Your task to perform on an android device: check out phone information Image 0: 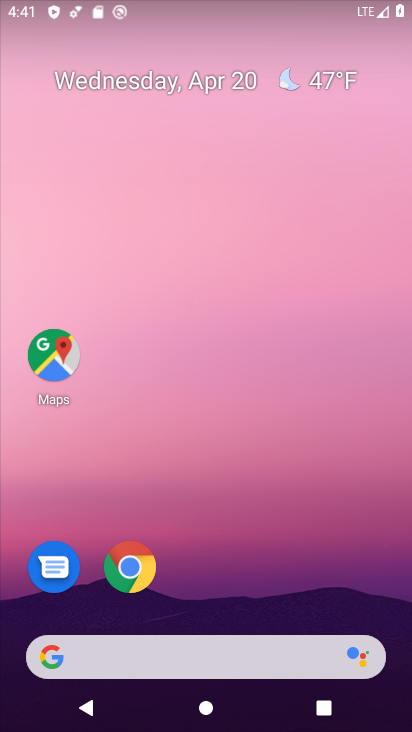
Step 0: drag from (309, 497) to (283, 3)
Your task to perform on an android device: check out phone information Image 1: 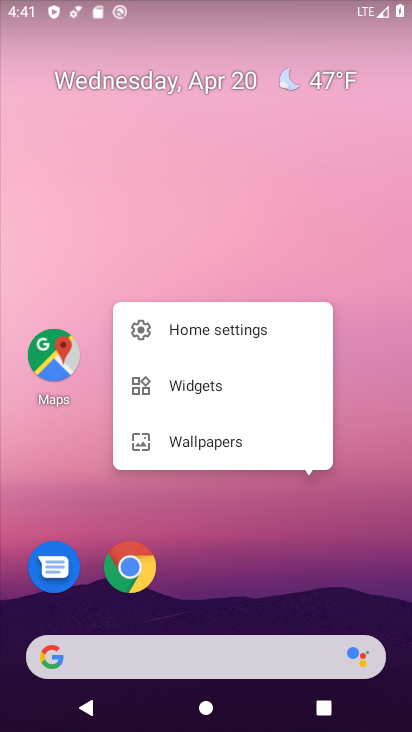
Step 1: click (344, 289)
Your task to perform on an android device: check out phone information Image 2: 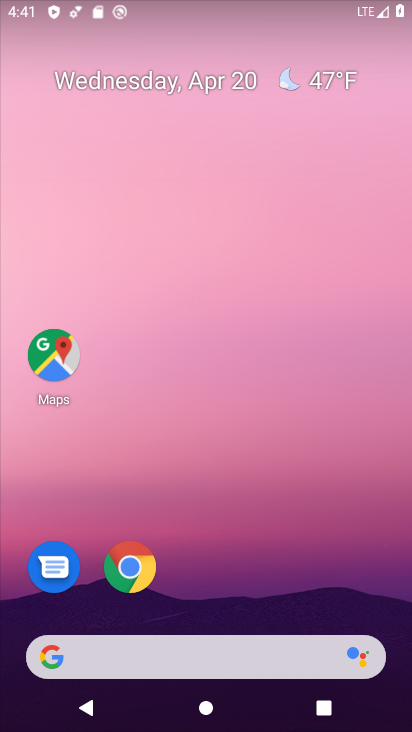
Step 2: drag from (295, 462) to (278, 2)
Your task to perform on an android device: check out phone information Image 3: 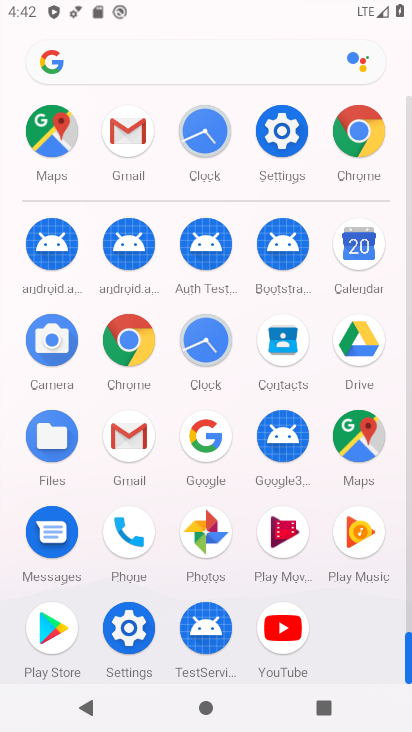
Step 3: click (285, 129)
Your task to perform on an android device: check out phone information Image 4: 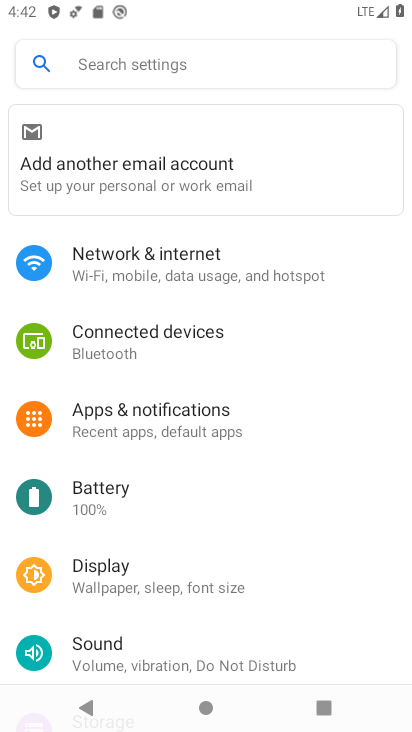
Step 4: drag from (341, 594) to (320, 265)
Your task to perform on an android device: check out phone information Image 5: 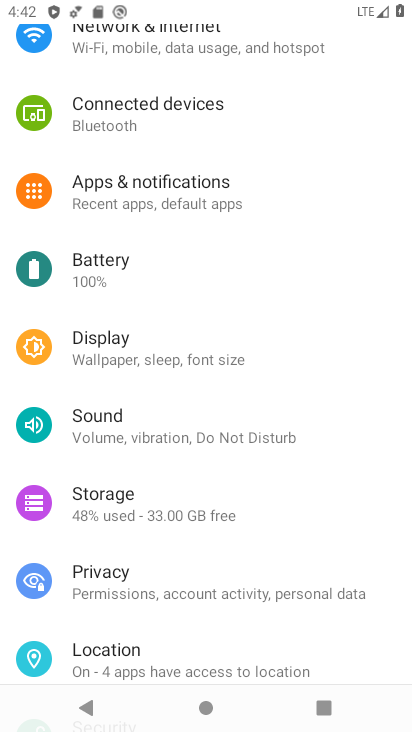
Step 5: drag from (246, 512) to (261, 140)
Your task to perform on an android device: check out phone information Image 6: 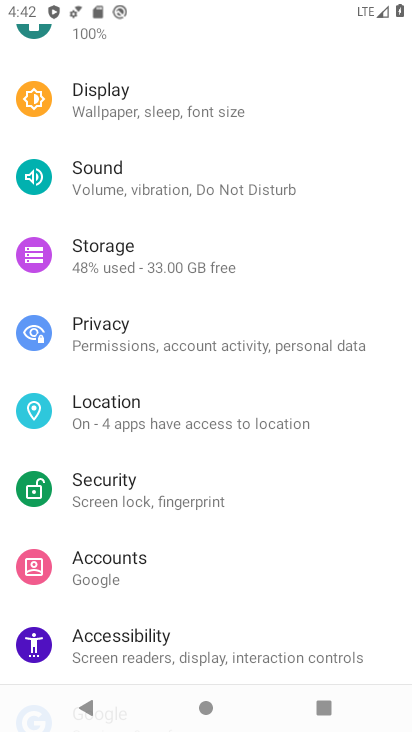
Step 6: drag from (249, 530) to (267, 206)
Your task to perform on an android device: check out phone information Image 7: 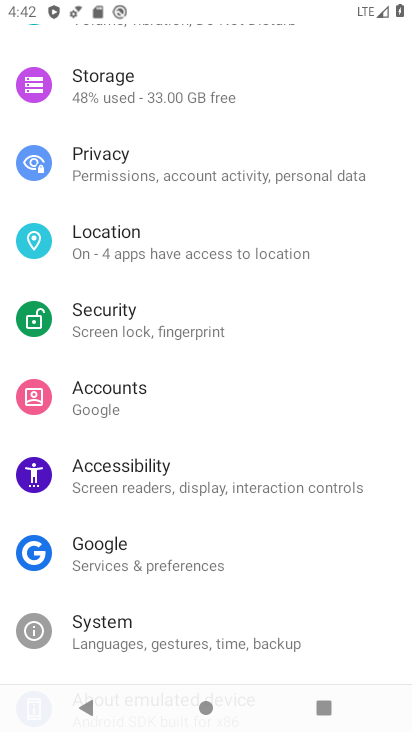
Step 7: drag from (242, 615) to (252, 108)
Your task to perform on an android device: check out phone information Image 8: 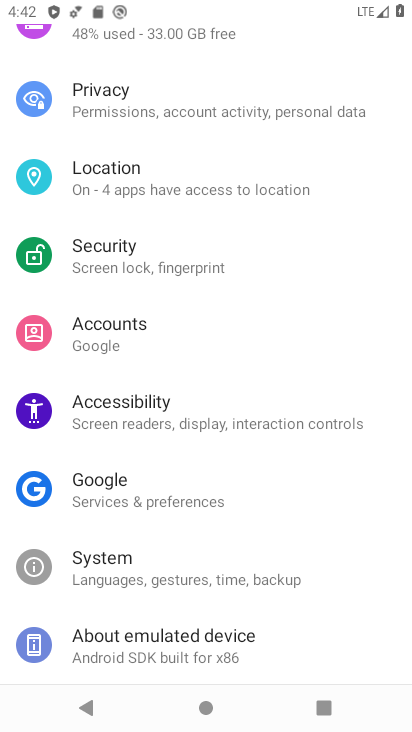
Step 8: click (163, 627)
Your task to perform on an android device: check out phone information Image 9: 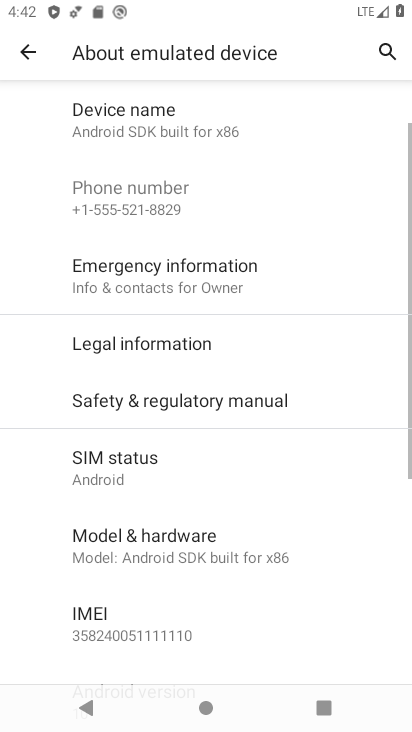
Step 9: task complete